Your task to perform on an android device: turn off notifications in google photos Image 0: 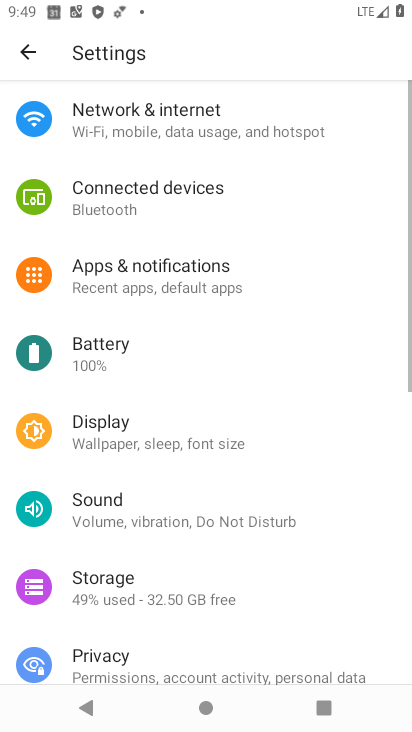
Step 0: click (118, 286)
Your task to perform on an android device: turn off notifications in google photos Image 1: 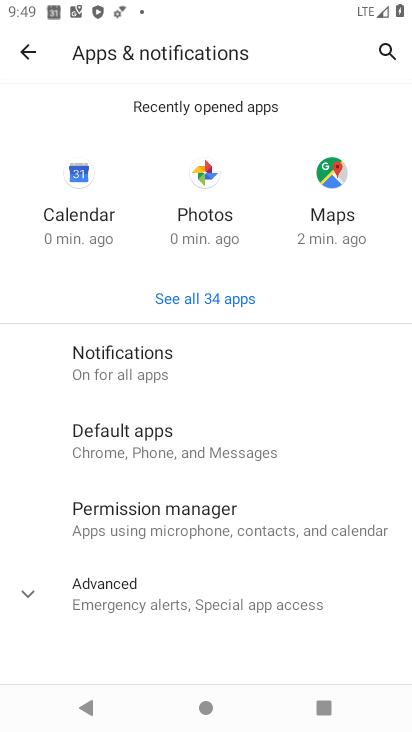
Step 1: click (215, 366)
Your task to perform on an android device: turn off notifications in google photos Image 2: 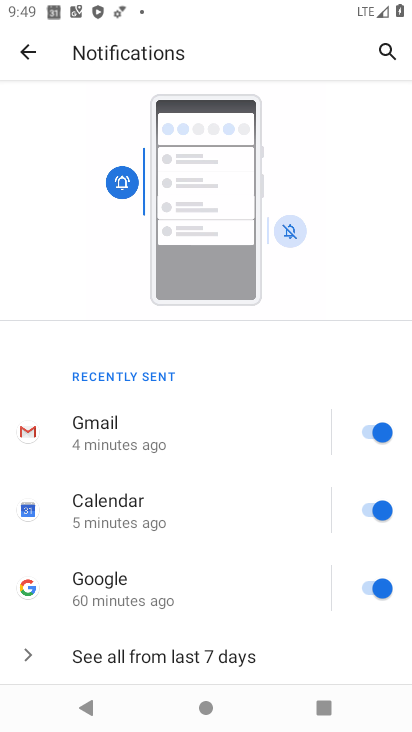
Step 2: drag from (203, 577) to (105, 31)
Your task to perform on an android device: turn off notifications in google photos Image 3: 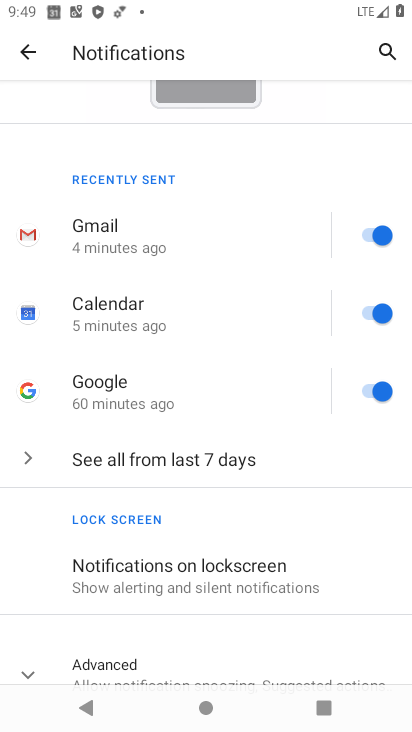
Step 3: drag from (246, 618) to (246, 33)
Your task to perform on an android device: turn off notifications in google photos Image 4: 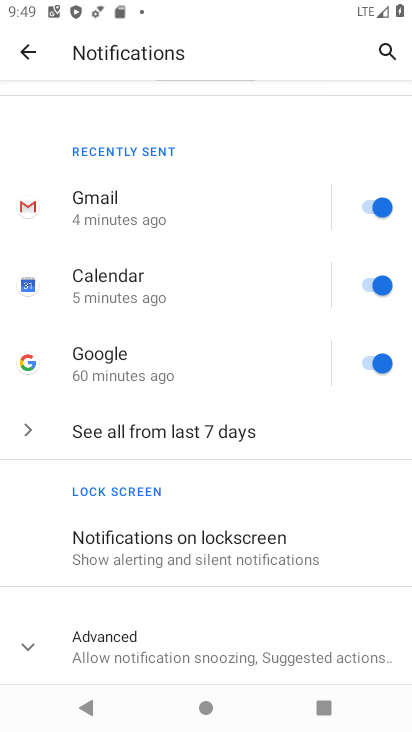
Step 4: drag from (301, 197) to (230, 593)
Your task to perform on an android device: turn off notifications in google photos Image 5: 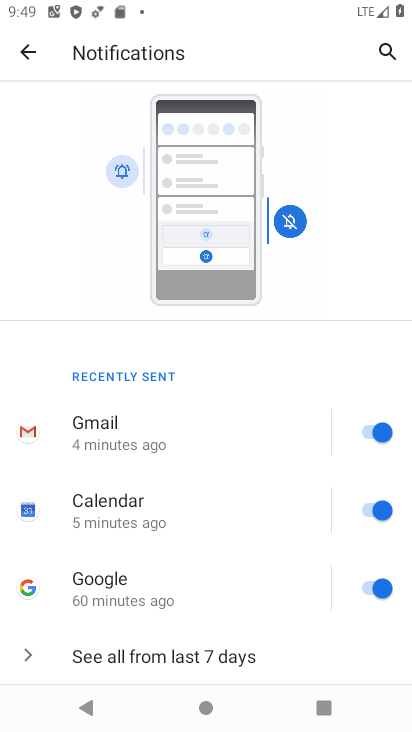
Step 5: press home button
Your task to perform on an android device: turn off notifications in google photos Image 6: 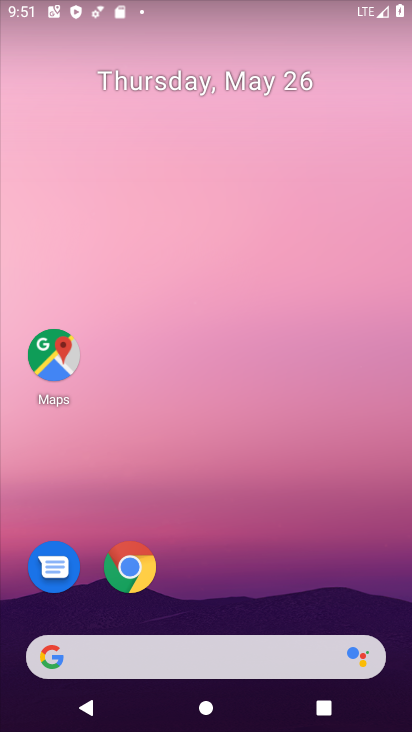
Step 6: drag from (150, 649) to (173, 63)
Your task to perform on an android device: turn off notifications in google photos Image 7: 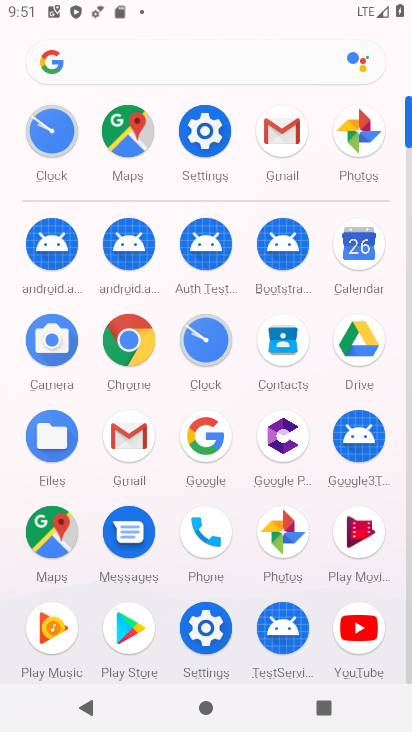
Step 7: click (291, 543)
Your task to perform on an android device: turn off notifications in google photos Image 8: 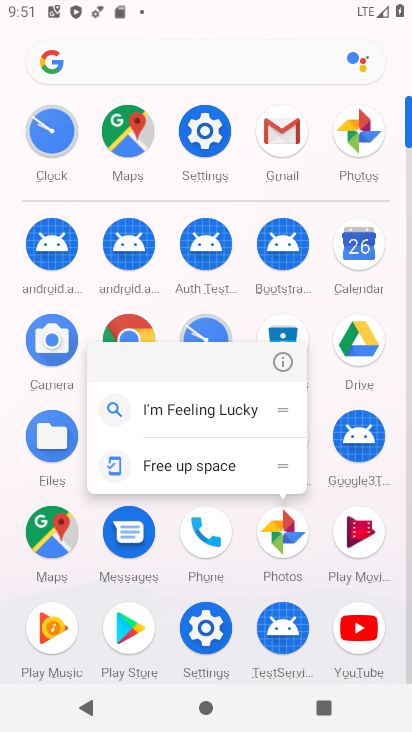
Step 8: click (283, 359)
Your task to perform on an android device: turn off notifications in google photos Image 9: 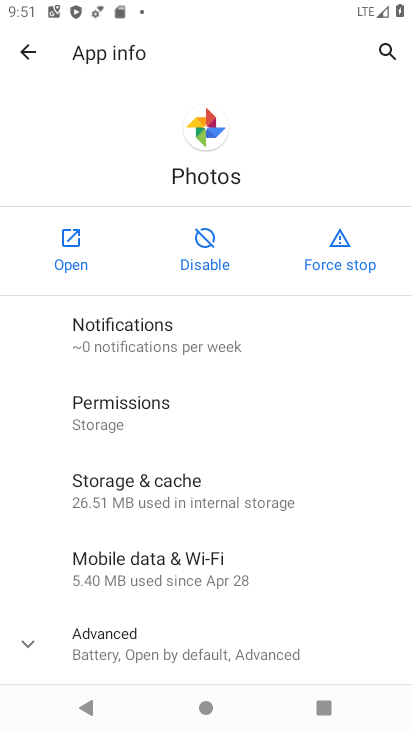
Step 9: click (271, 342)
Your task to perform on an android device: turn off notifications in google photos Image 10: 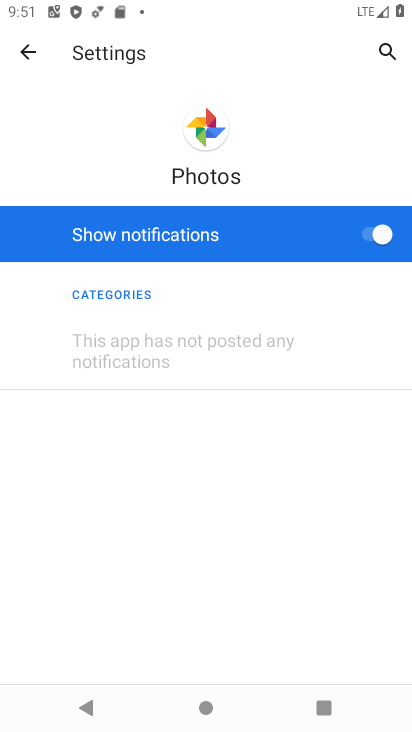
Step 10: click (381, 231)
Your task to perform on an android device: turn off notifications in google photos Image 11: 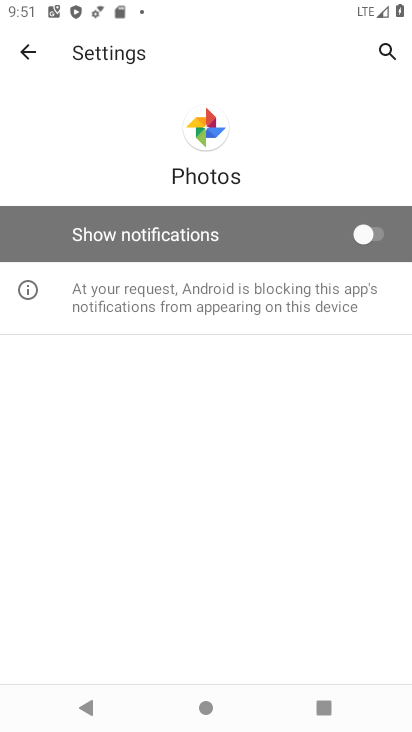
Step 11: task complete